Your task to perform on an android device: What's the weather? Image 0: 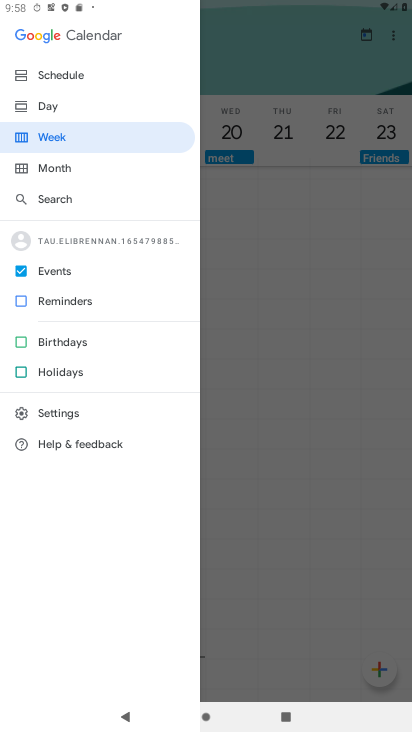
Step 0: press home button
Your task to perform on an android device: What's the weather? Image 1: 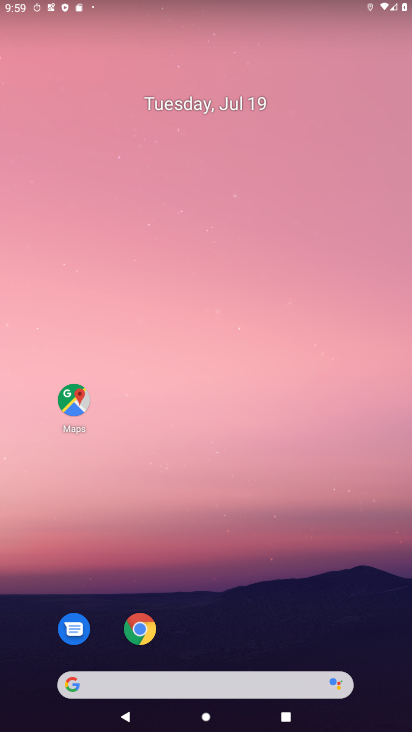
Step 1: click (198, 685)
Your task to perform on an android device: What's the weather? Image 2: 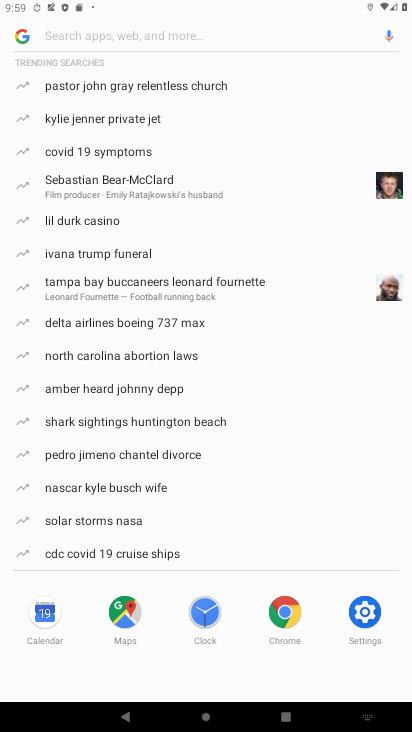
Step 2: type "weather"
Your task to perform on an android device: What's the weather? Image 3: 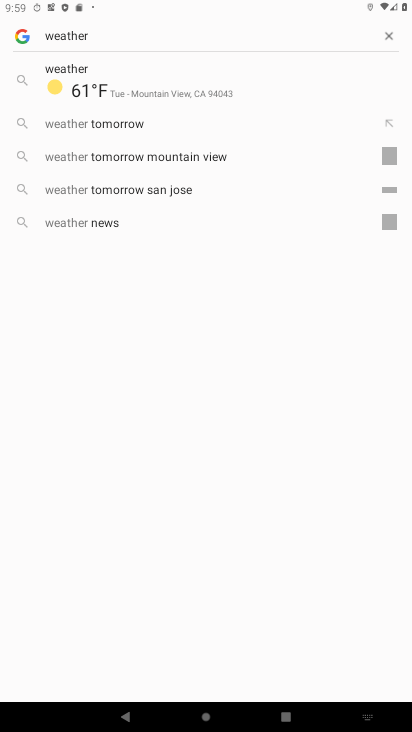
Step 3: click (68, 69)
Your task to perform on an android device: What's the weather? Image 4: 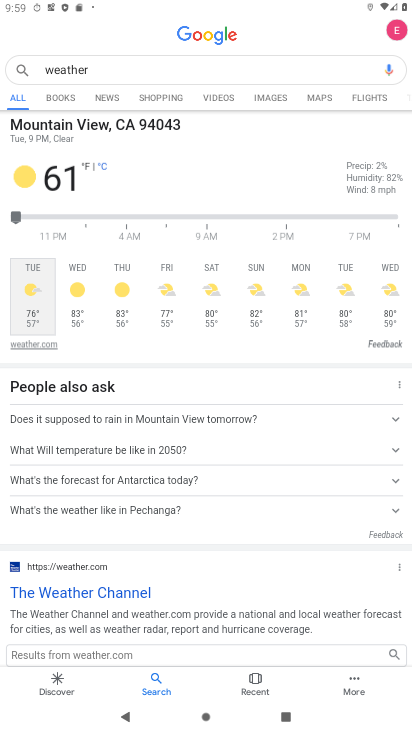
Step 4: task complete